Your task to perform on an android device: Go to Amazon Image 0: 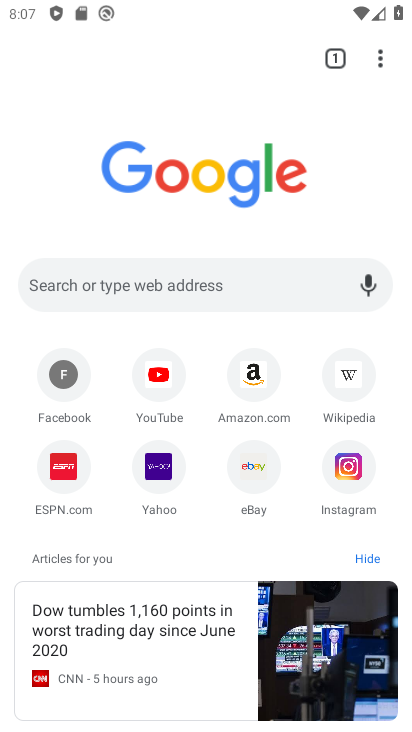
Step 0: click (273, 386)
Your task to perform on an android device: Go to Amazon Image 1: 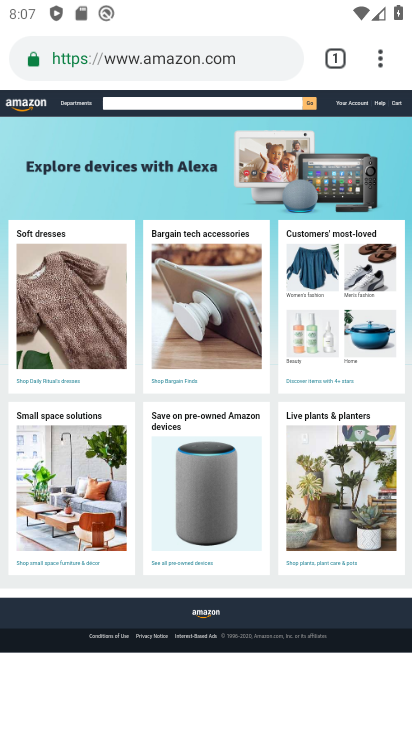
Step 1: task complete